Your task to perform on an android device: add a label to a message in the gmail app Image 0: 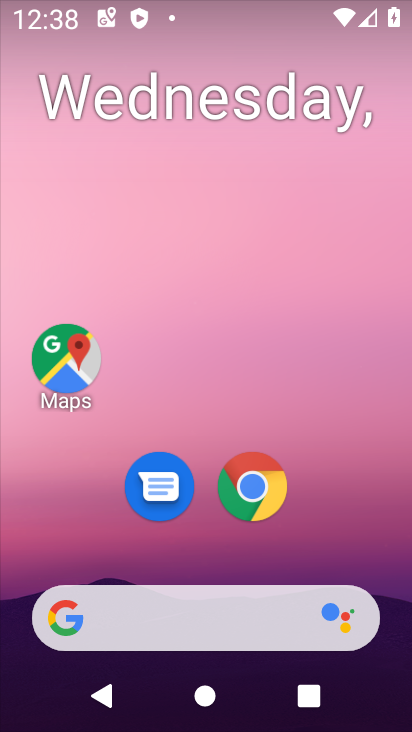
Step 0: drag from (327, 534) to (325, 56)
Your task to perform on an android device: add a label to a message in the gmail app Image 1: 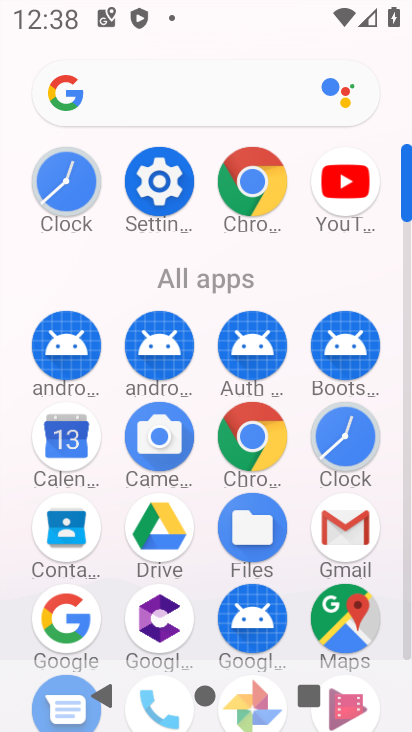
Step 1: drag from (391, 492) to (384, 269)
Your task to perform on an android device: add a label to a message in the gmail app Image 2: 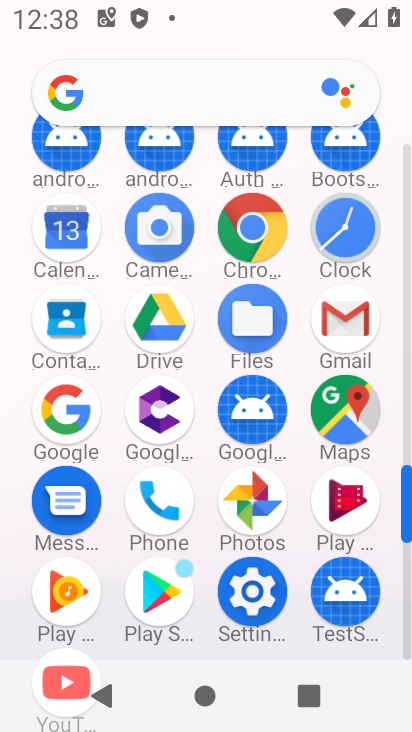
Step 2: click (365, 320)
Your task to perform on an android device: add a label to a message in the gmail app Image 3: 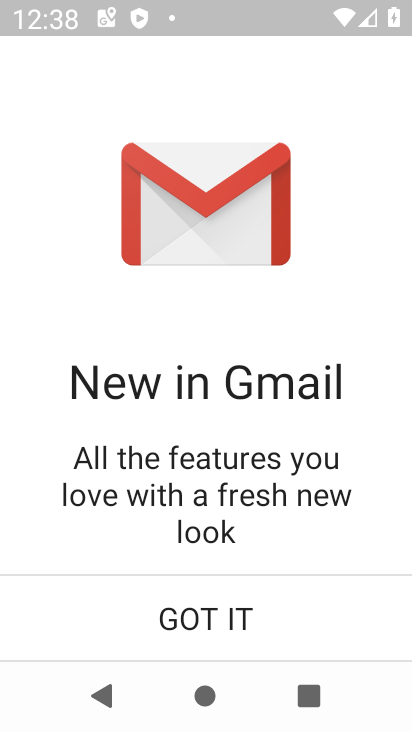
Step 3: click (308, 605)
Your task to perform on an android device: add a label to a message in the gmail app Image 4: 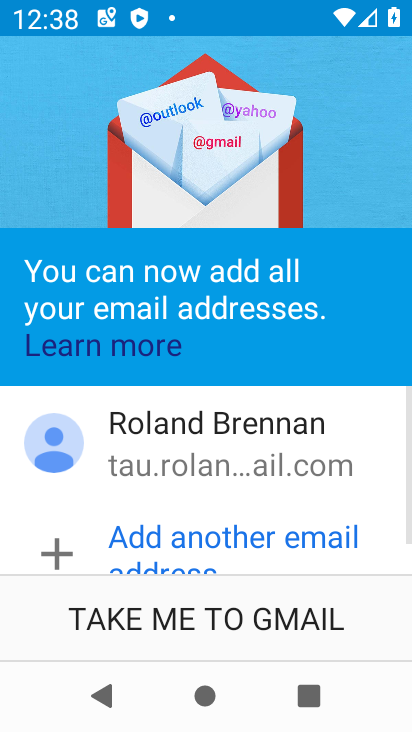
Step 4: click (308, 605)
Your task to perform on an android device: add a label to a message in the gmail app Image 5: 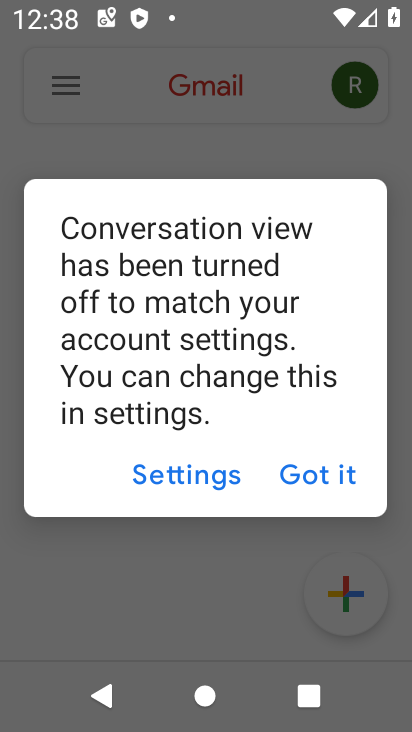
Step 5: click (341, 480)
Your task to perform on an android device: add a label to a message in the gmail app Image 6: 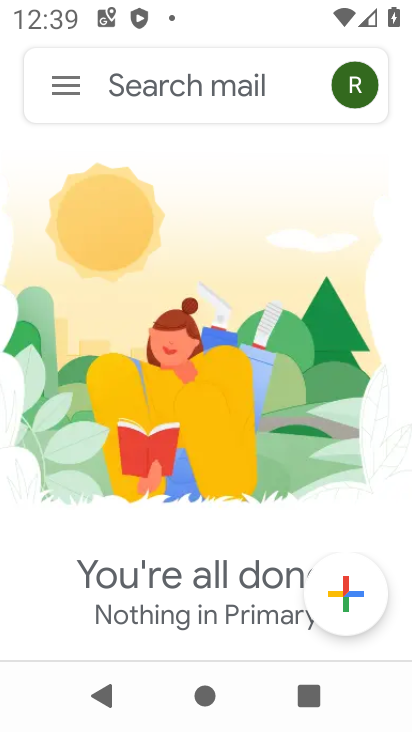
Step 6: task complete